Your task to perform on an android device: Open Google Chrome and open the bookmarks view Image 0: 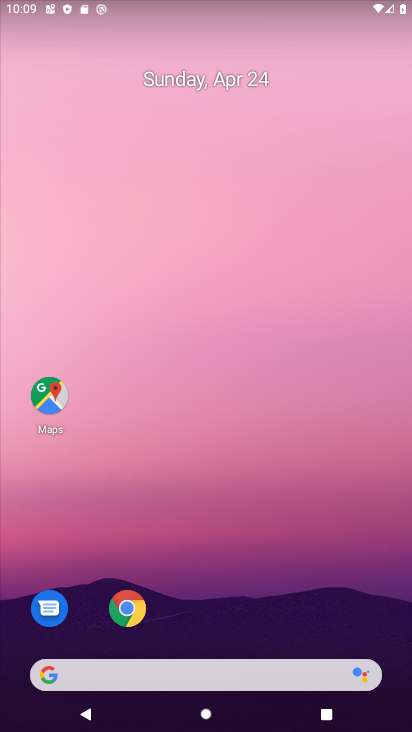
Step 0: drag from (206, 531) to (288, 4)
Your task to perform on an android device: Open Google Chrome and open the bookmarks view Image 1: 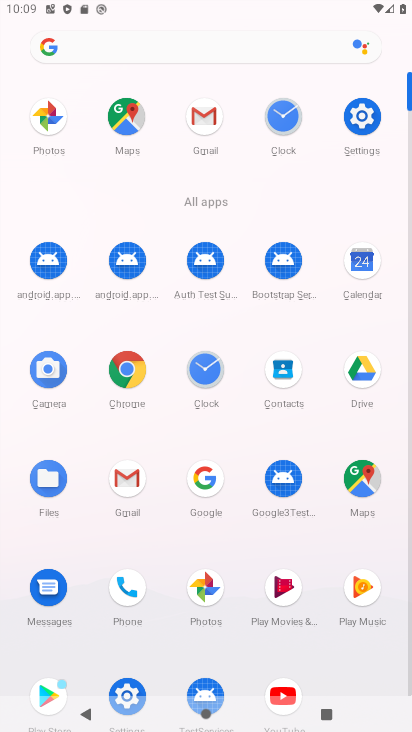
Step 1: click (121, 368)
Your task to perform on an android device: Open Google Chrome and open the bookmarks view Image 2: 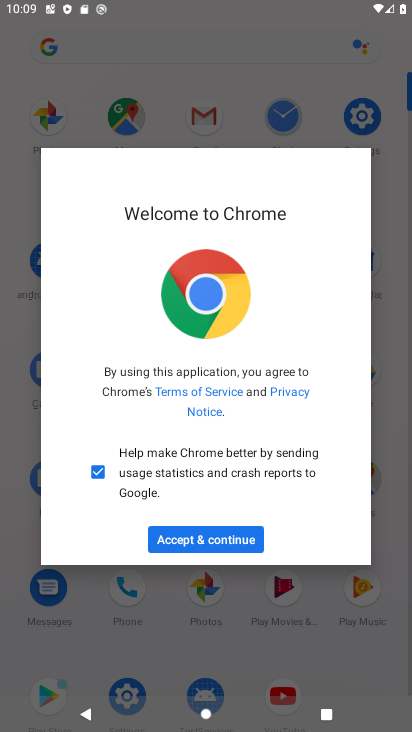
Step 2: click (219, 534)
Your task to perform on an android device: Open Google Chrome and open the bookmarks view Image 3: 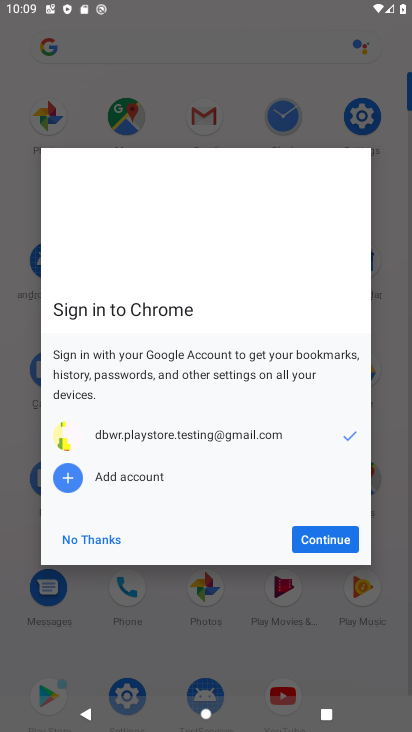
Step 3: click (335, 534)
Your task to perform on an android device: Open Google Chrome and open the bookmarks view Image 4: 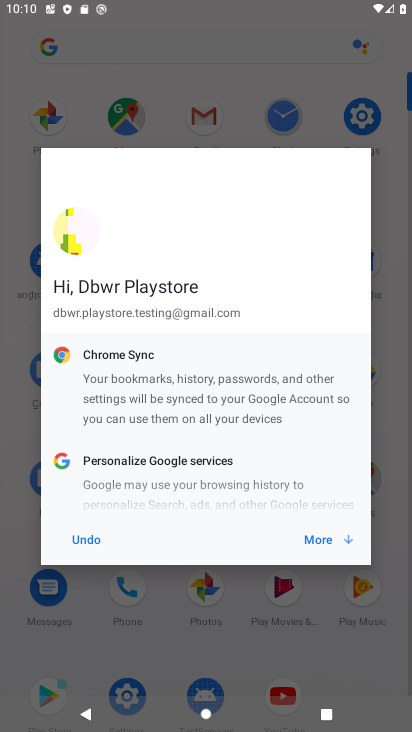
Step 4: click (314, 547)
Your task to perform on an android device: Open Google Chrome and open the bookmarks view Image 5: 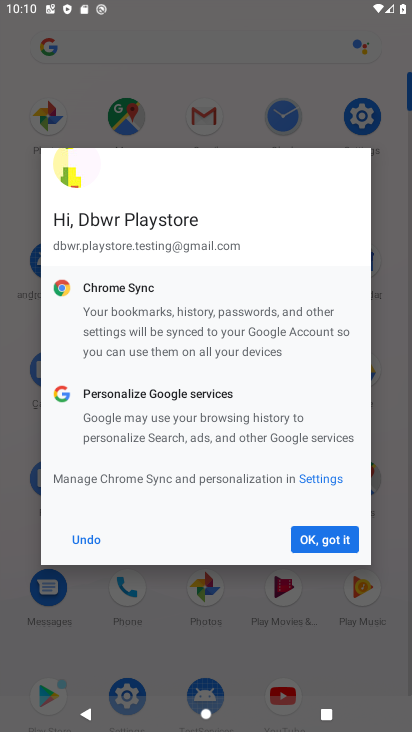
Step 5: click (313, 540)
Your task to perform on an android device: Open Google Chrome and open the bookmarks view Image 6: 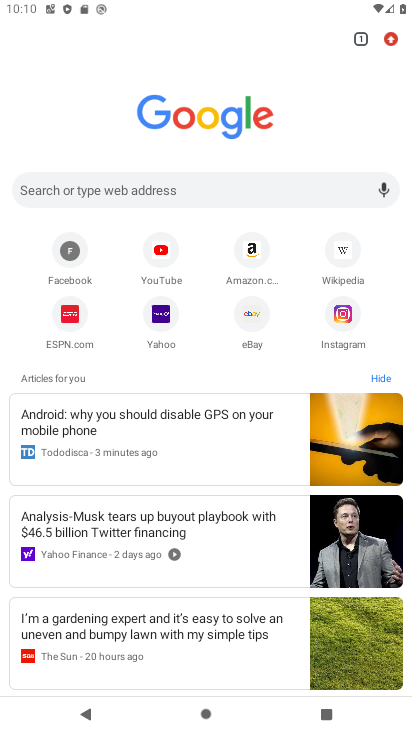
Step 6: task complete